Your task to perform on an android device: Find coffee shops on Maps Image 0: 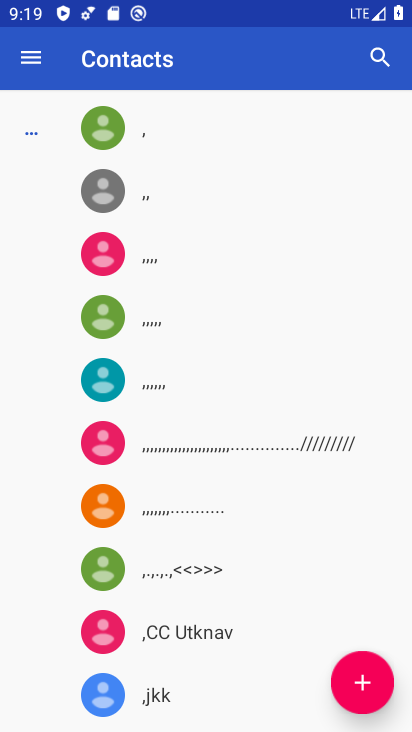
Step 0: press home button
Your task to perform on an android device: Find coffee shops on Maps Image 1: 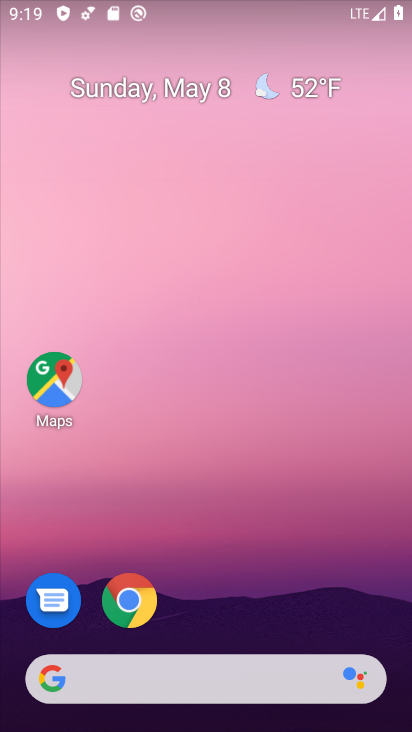
Step 1: click (62, 380)
Your task to perform on an android device: Find coffee shops on Maps Image 2: 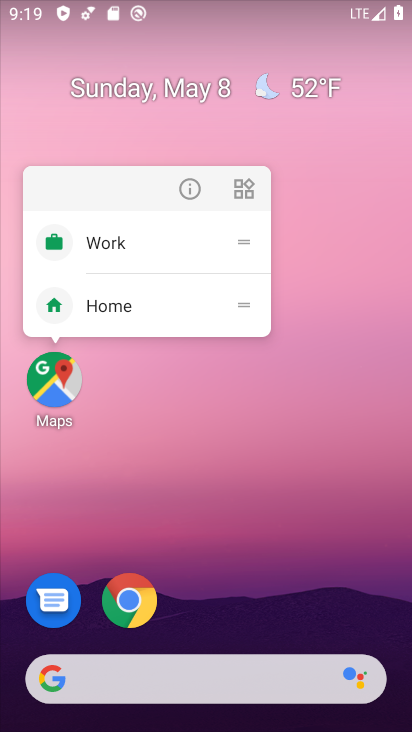
Step 2: click (50, 383)
Your task to perform on an android device: Find coffee shops on Maps Image 3: 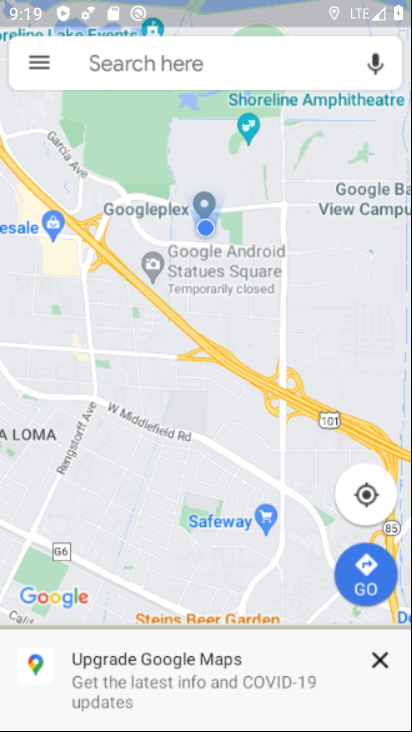
Step 3: click (114, 60)
Your task to perform on an android device: Find coffee shops on Maps Image 4: 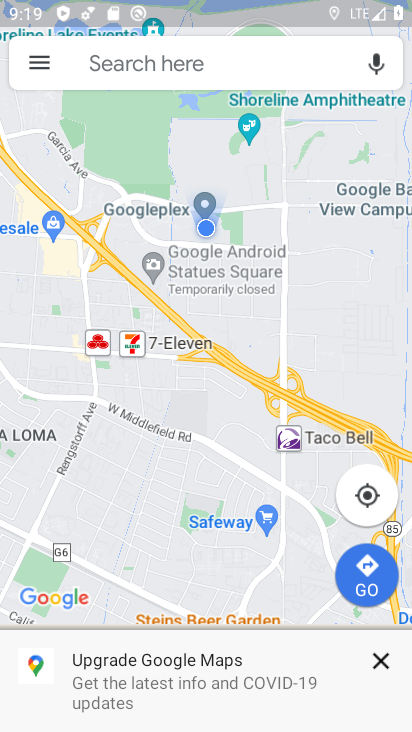
Step 4: click (114, 67)
Your task to perform on an android device: Find coffee shops on Maps Image 5: 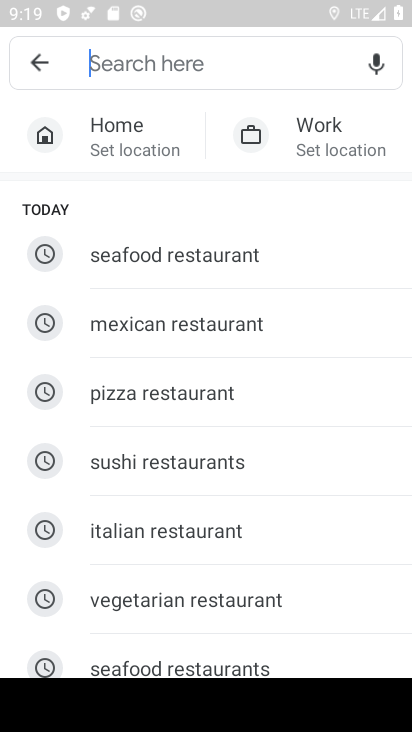
Step 5: type "coffee shops"
Your task to perform on an android device: Find coffee shops on Maps Image 6: 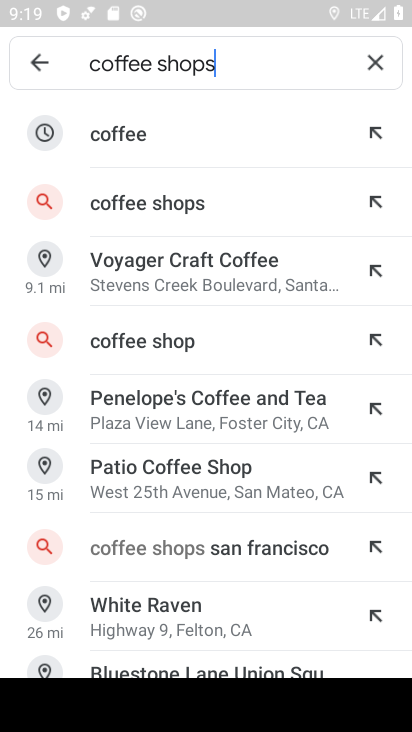
Step 6: click (146, 209)
Your task to perform on an android device: Find coffee shops on Maps Image 7: 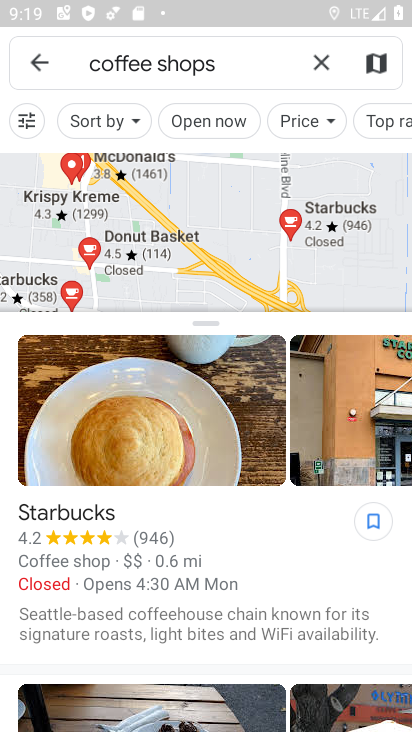
Step 7: task complete